Your task to perform on an android device: check out phone information Image 0: 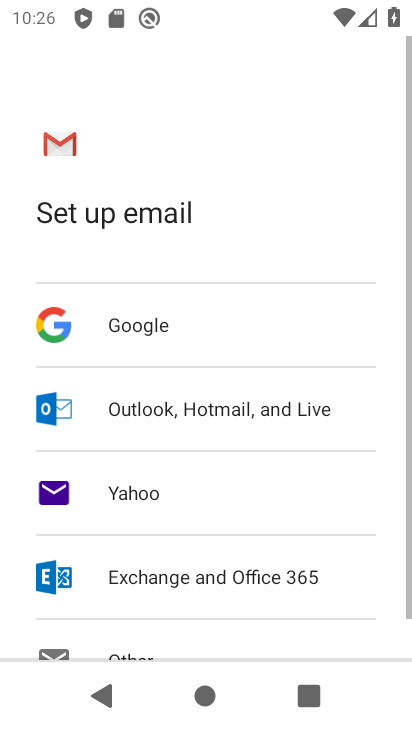
Step 0: press back button
Your task to perform on an android device: check out phone information Image 1: 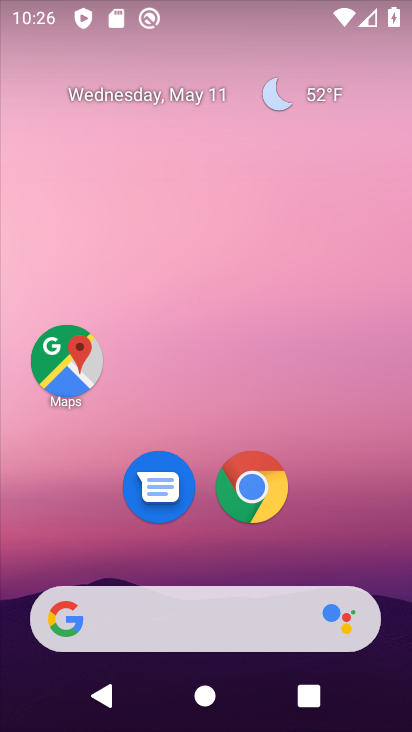
Step 1: drag from (315, 450) to (252, 0)
Your task to perform on an android device: check out phone information Image 2: 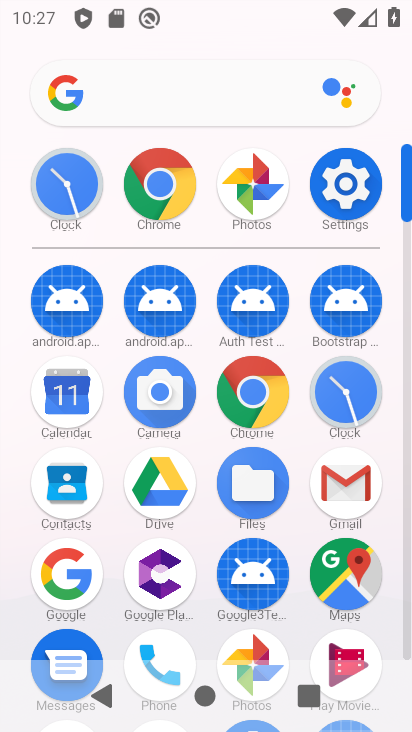
Step 2: click (344, 181)
Your task to perform on an android device: check out phone information Image 3: 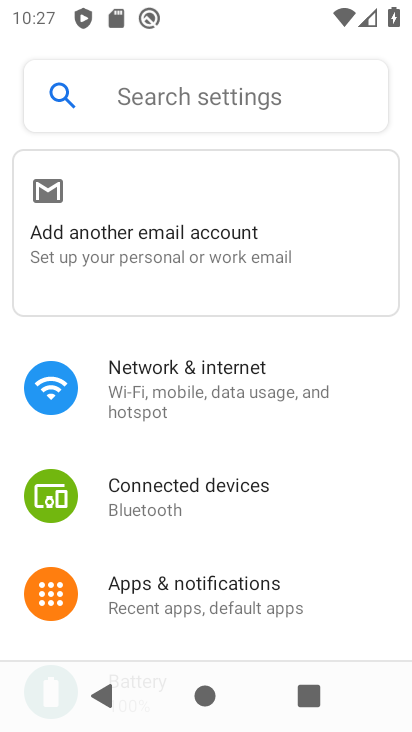
Step 3: drag from (355, 557) to (351, 170)
Your task to perform on an android device: check out phone information Image 4: 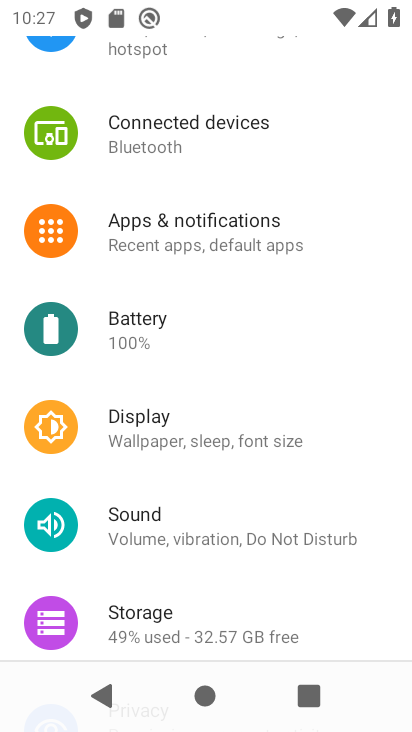
Step 4: drag from (348, 571) to (369, 168)
Your task to perform on an android device: check out phone information Image 5: 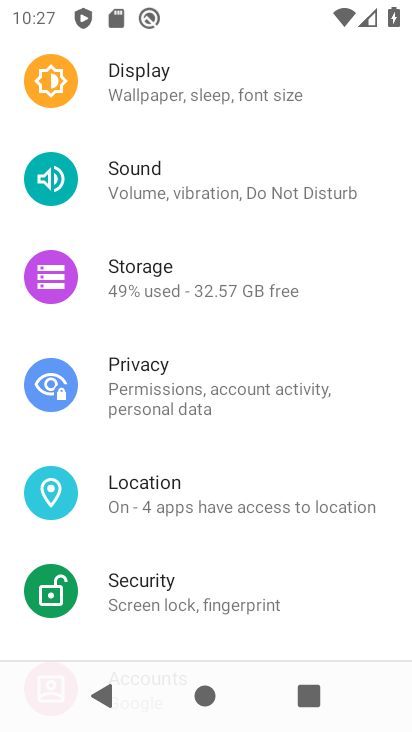
Step 5: drag from (360, 542) to (361, 144)
Your task to perform on an android device: check out phone information Image 6: 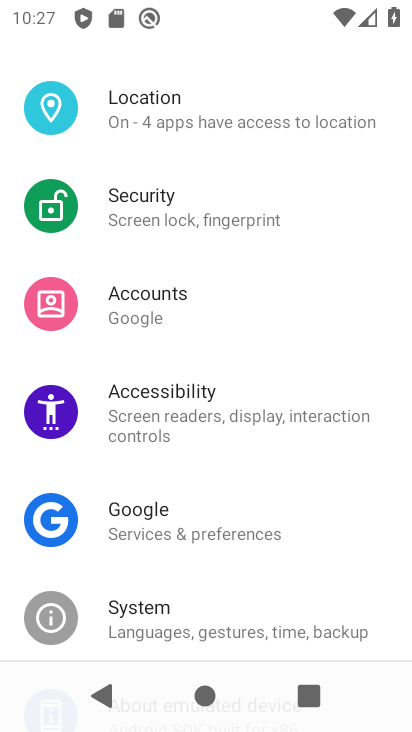
Step 6: drag from (314, 558) to (355, 141)
Your task to perform on an android device: check out phone information Image 7: 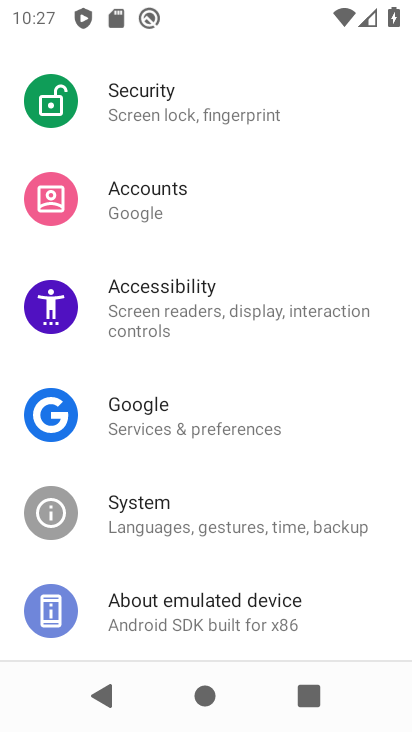
Step 7: drag from (313, 543) to (317, 178)
Your task to perform on an android device: check out phone information Image 8: 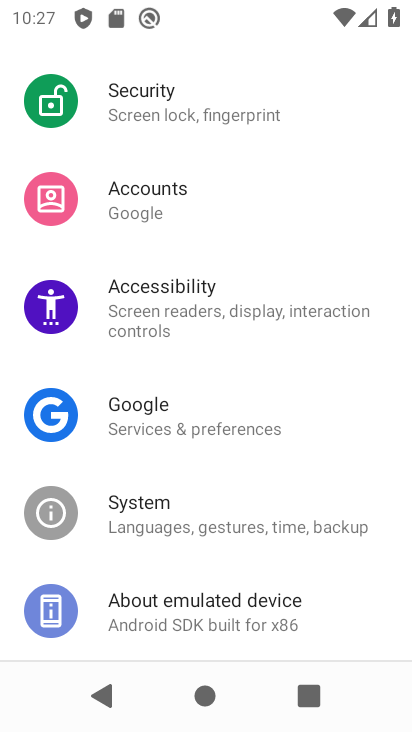
Step 8: click (227, 609)
Your task to perform on an android device: check out phone information Image 9: 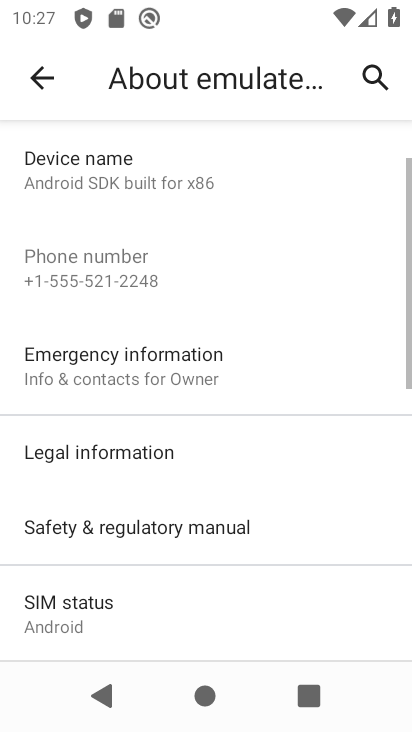
Step 9: task complete